Your task to perform on an android device: change the clock display to show seconds Image 0: 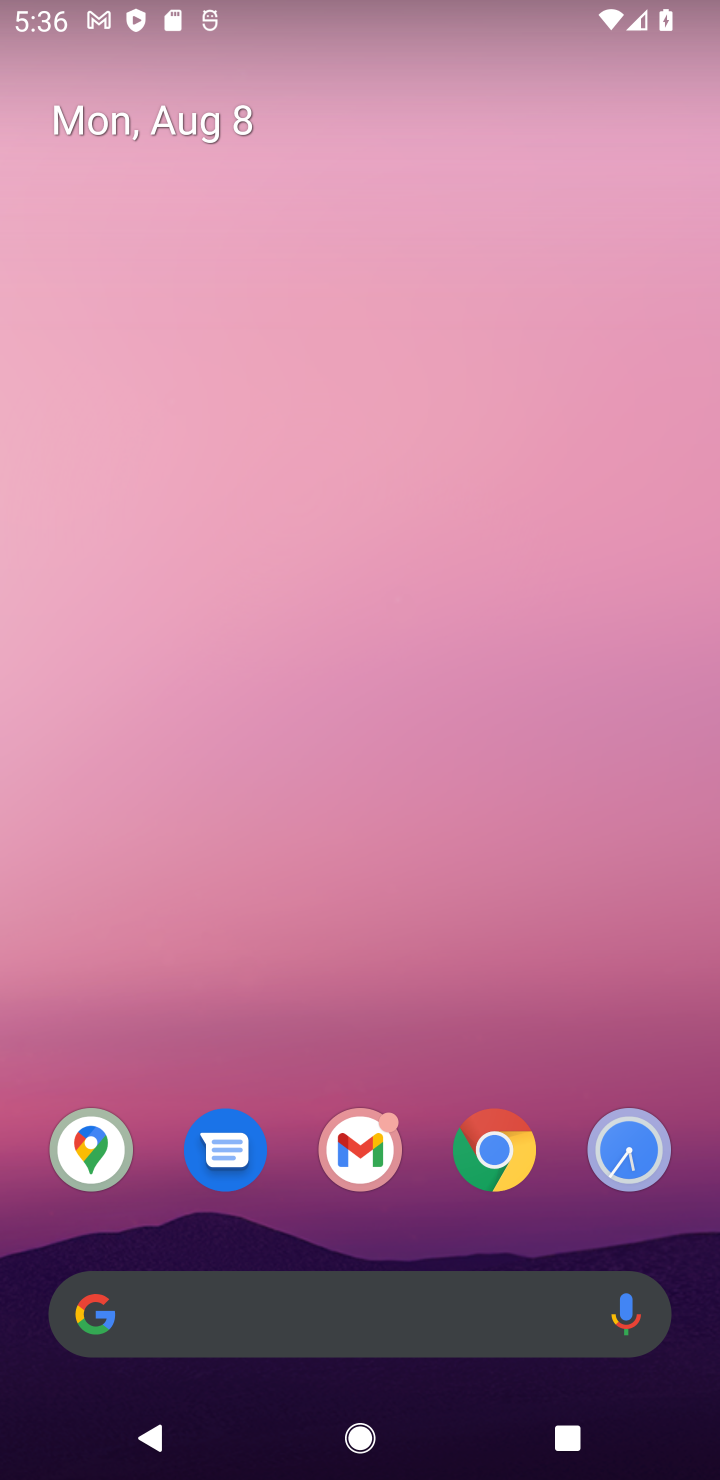
Step 0: drag from (423, 1228) to (346, 53)
Your task to perform on an android device: change the clock display to show seconds Image 1: 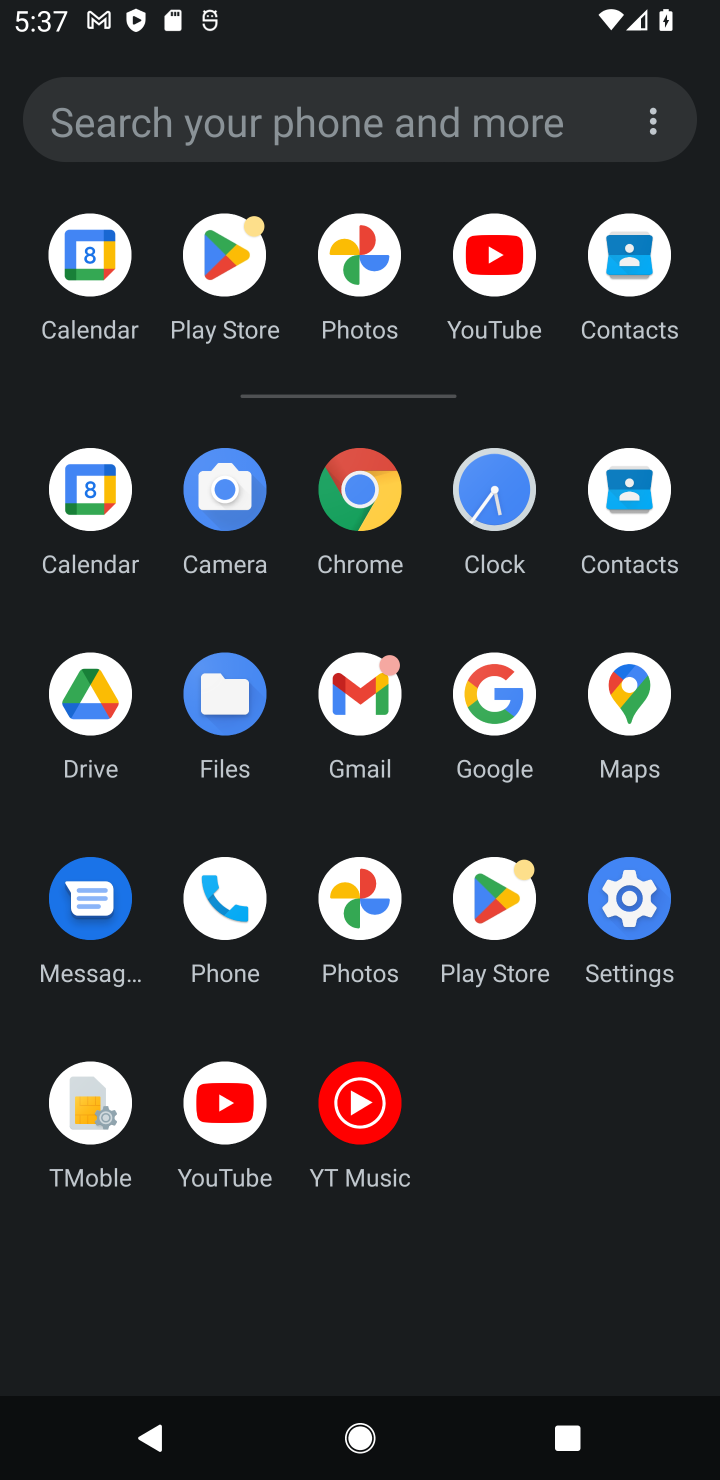
Step 1: click (616, 905)
Your task to perform on an android device: change the clock display to show seconds Image 2: 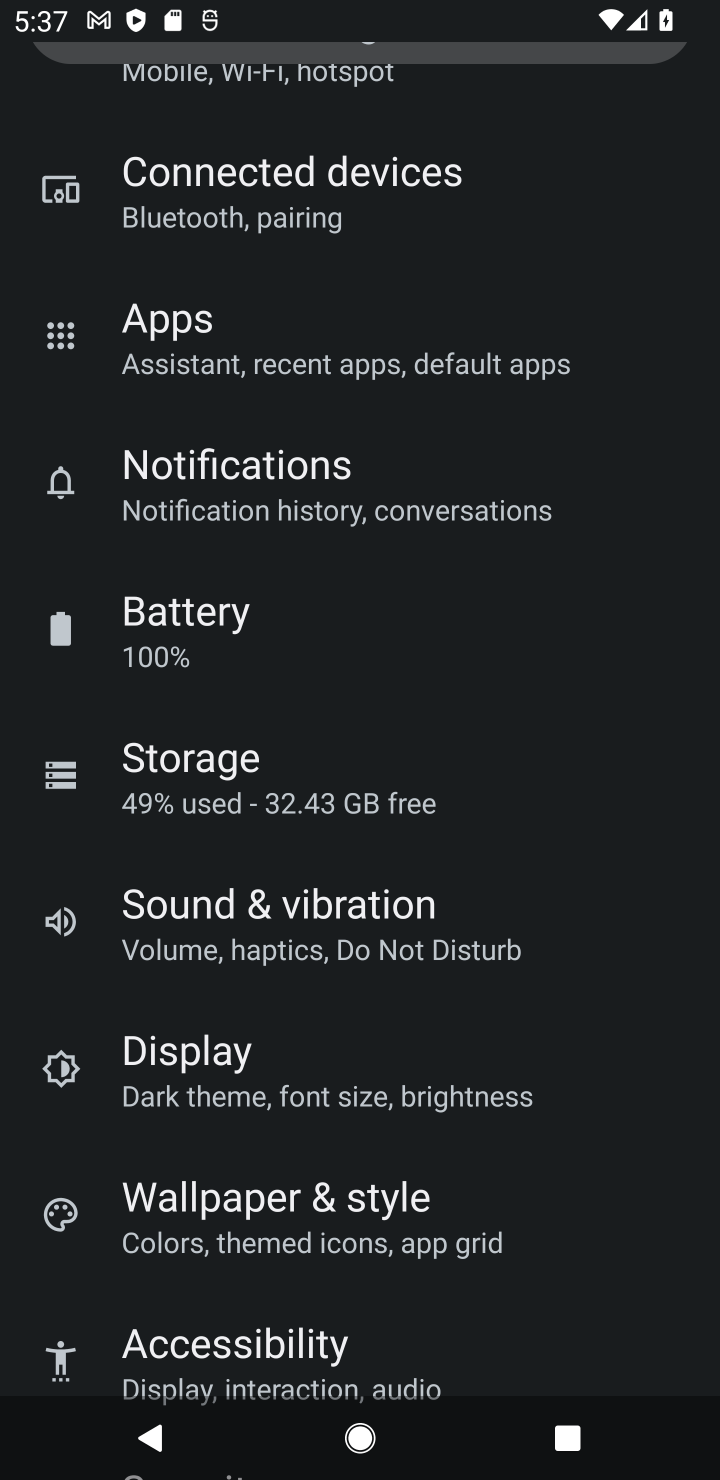
Step 2: click (355, 619)
Your task to perform on an android device: change the clock display to show seconds Image 3: 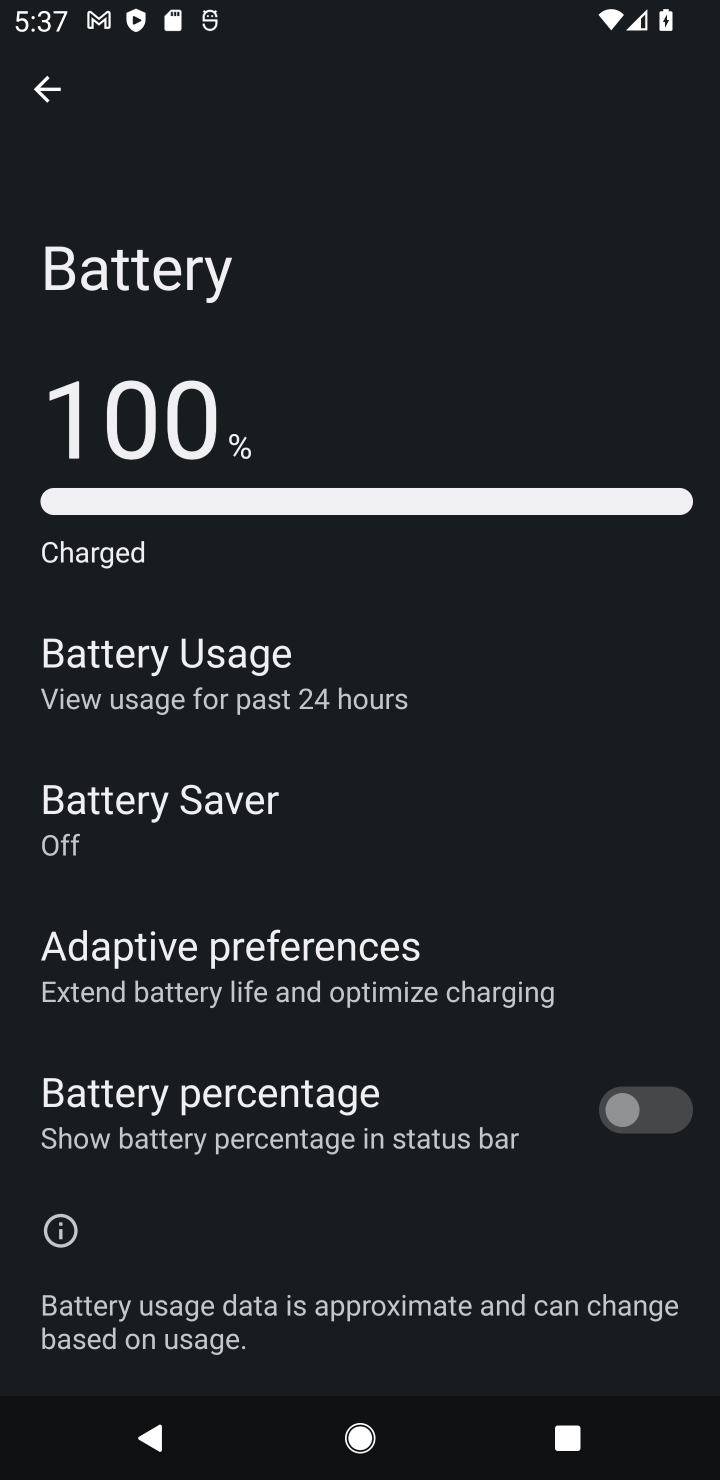
Step 3: click (51, 84)
Your task to perform on an android device: change the clock display to show seconds Image 4: 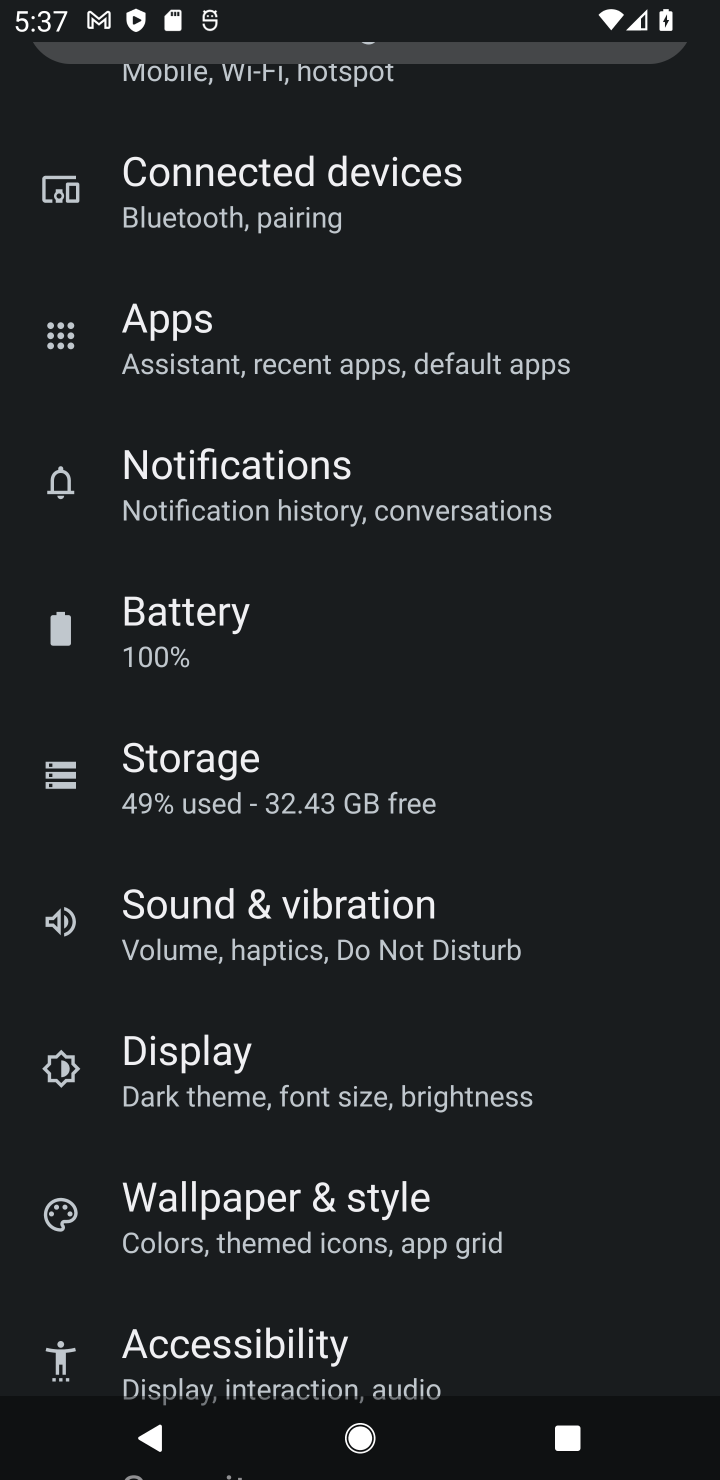
Step 4: click (184, 1038)
Your task to perform on an android device: change the clock display to show seconds Image 5: 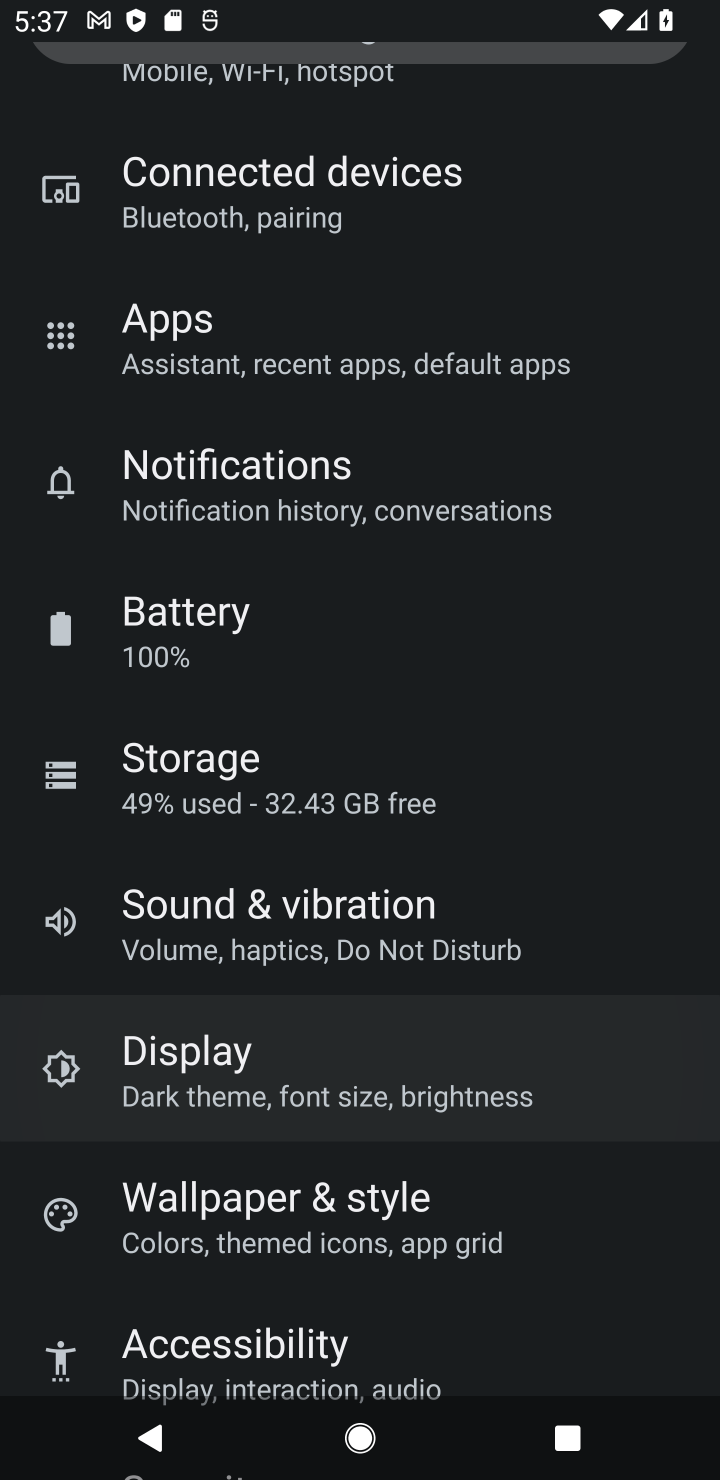
Step 5: task complete